Your task to perform on an android device: stop showing notifications on the lock screen Image 0: 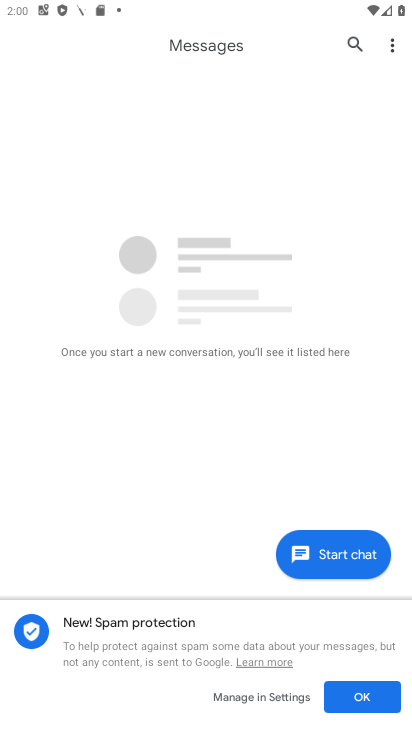
Step 0: press home button
Your task to perform on an android device: stop showing notifications on the lock screen Image 1: 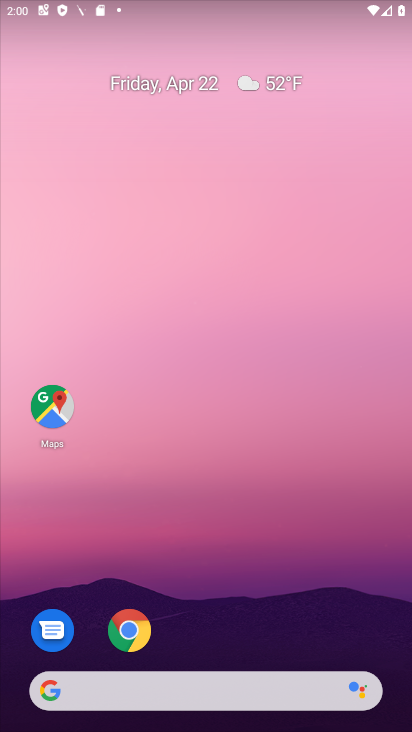
Step 1: drag from (304, 551) to (228, 220)
Your task to perform on an android device: stop showing notifications on the lock screen Image 2: 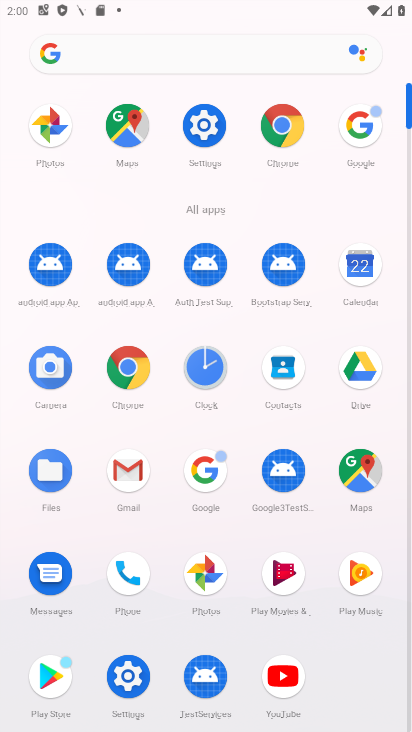
Step 2: click (203, 153)
Your task to perform on an android device: stop showing notifications on the lock screen Image 3: 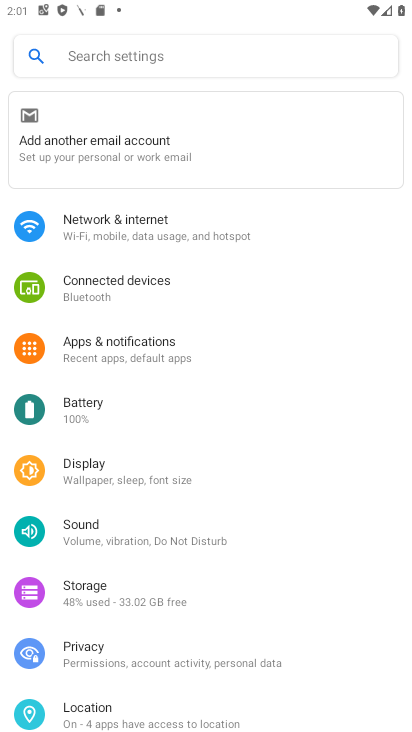
Step 3: click (190, 353)
Your task to perform on an android device: stop showing notifications on the lock screen Image 4: 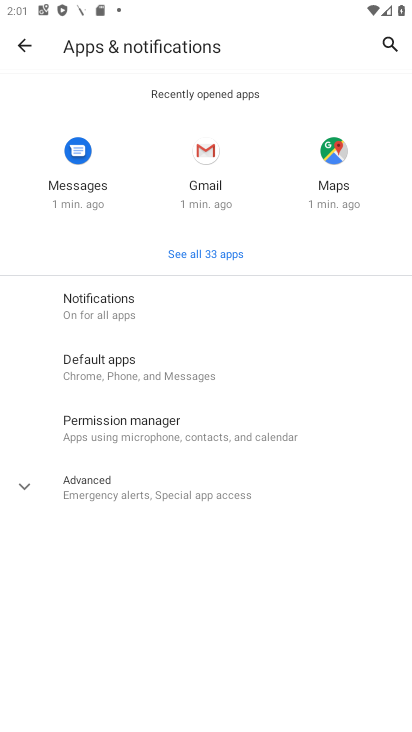
Step 4: click (169, 315)
Your task to perform on an android device: stop showing notifications on the lock screen Image 5: 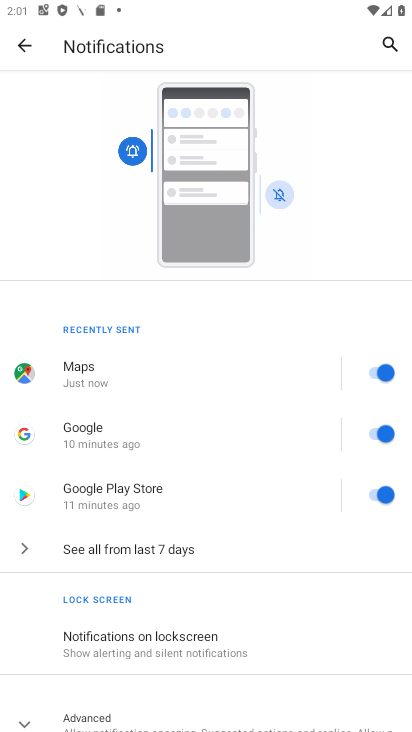
Step 5: drag from (169, 663) to (143, 283)
Your task to perform on an android device: stop showing notifications on the lock screen Image 6: 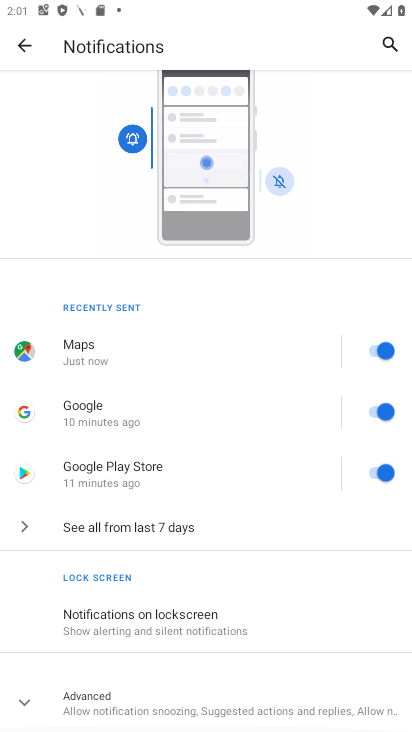
Step 6: click (126, 608)
Your task to perform on an android device: stop showing notifications on the lock screen Image 7: 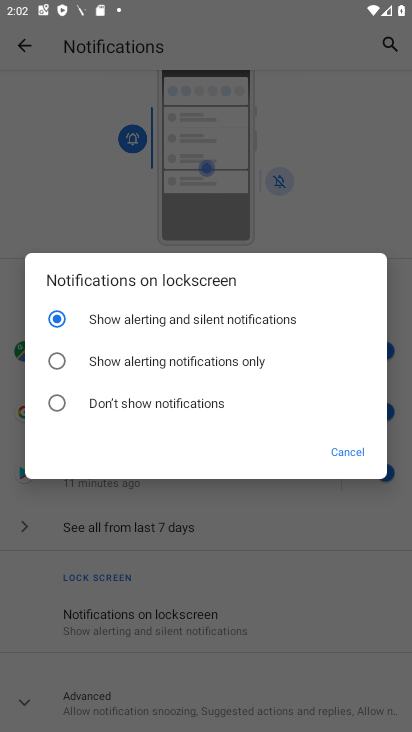
Step 7: click (160, 406)
Your task to perform on an android device: stop showing notifications on the lock screen Image 8: 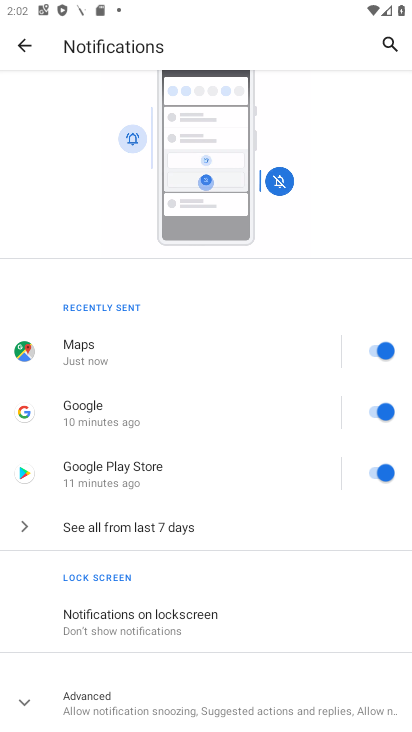
Step 8: task complete